Your task to perform on an android device: Open CNN.com Image 0: 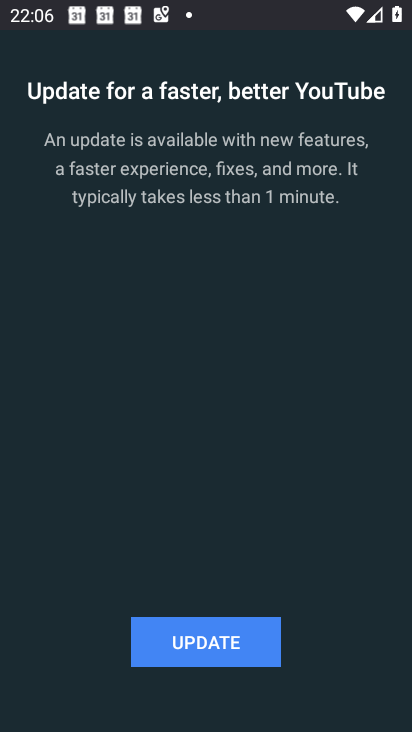
Step 0: press home button
Your task to perform on an android device: Open CNN.com Image 1: 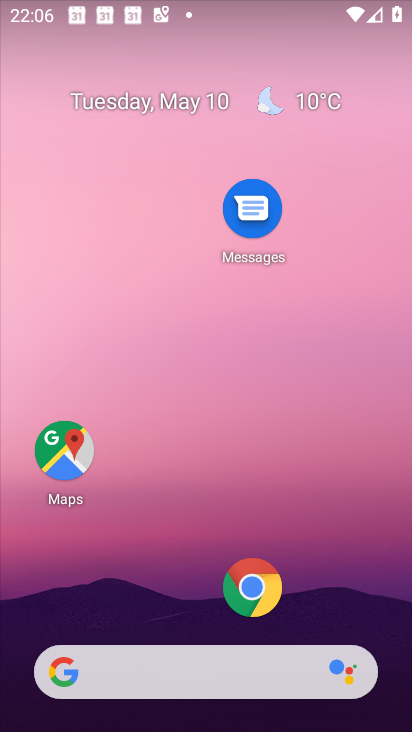
Step 1: click (259, 594)
Your task to perform on an android device: Open CNN.com Image 2: 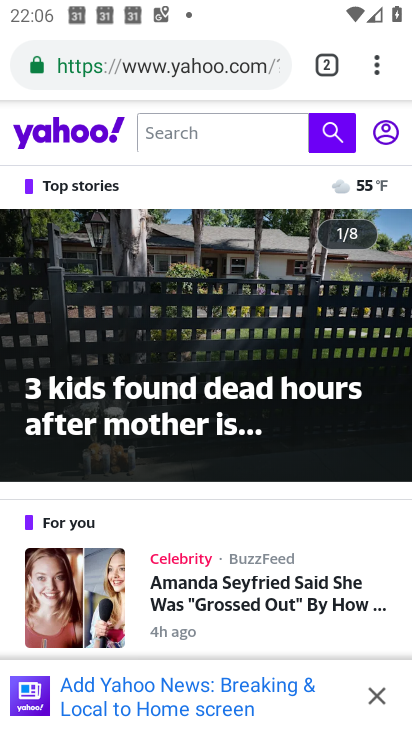
Step 2: click (200, 65)
Your task to perform on an android device: Open CNN.com Image 3: 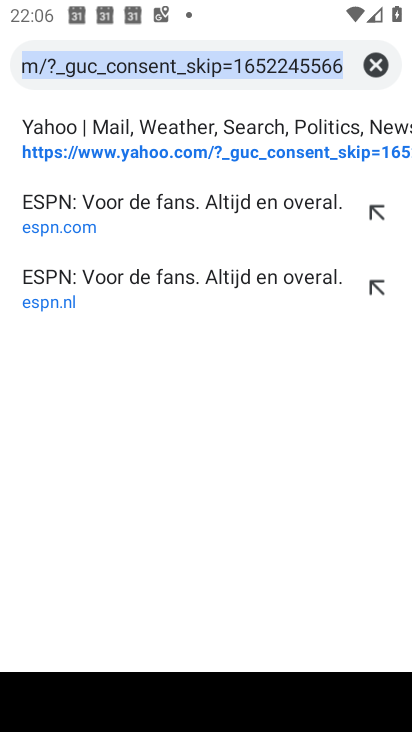
Step 3: type "CNN.com"
Your task to perform on an android device: Open CNN.com Image 4: 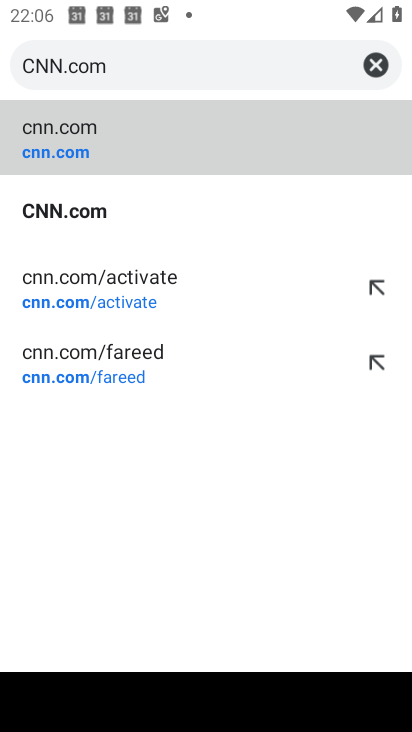
Step 4: click (82, 212)
Your task to perform on an android device: Open CNN.com Image 5: 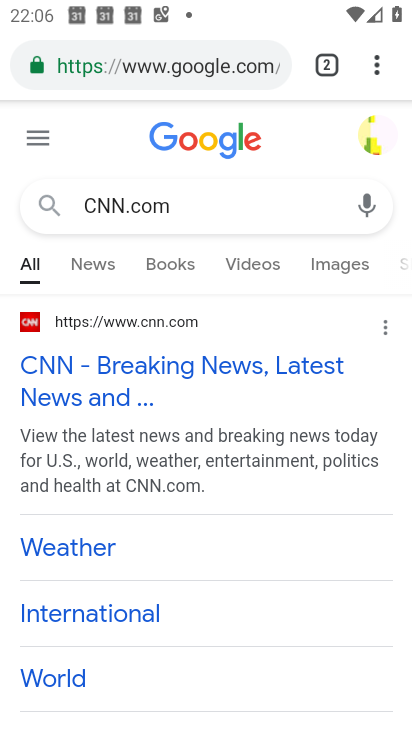
Step 5: task complete